Your task to perform on an android device: Open Youtube and go to "Your channel" Image 0: 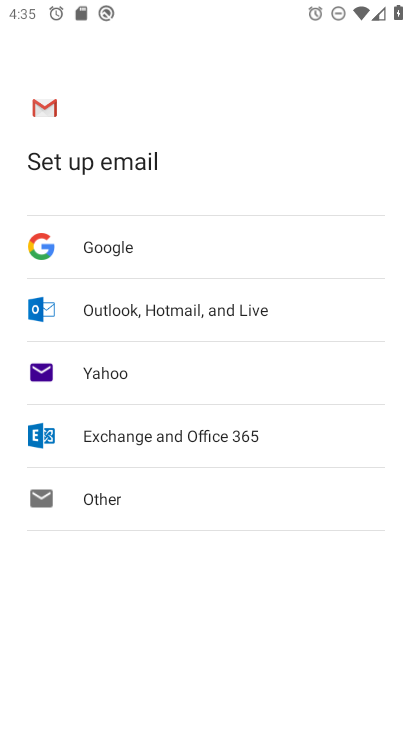
Step 0: press back button
Your task to perform on an android device: Open Youtube and go to "Your channel" Image 1: 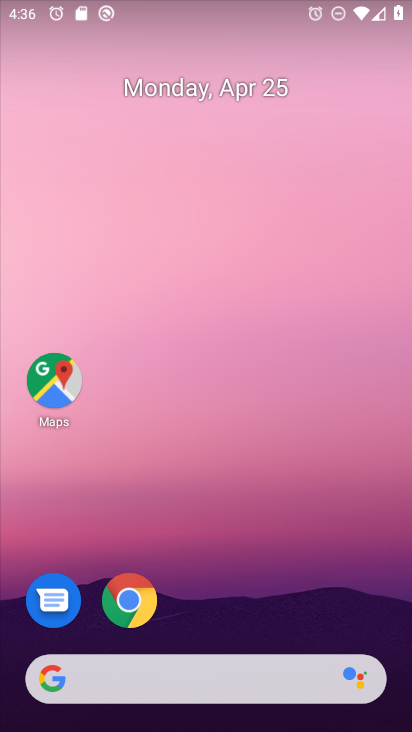
Step 1: drag from (226, 487) to (222, 39)
Your task to perform on an android device: Open Youtube and go to "Your channel" Image 2: 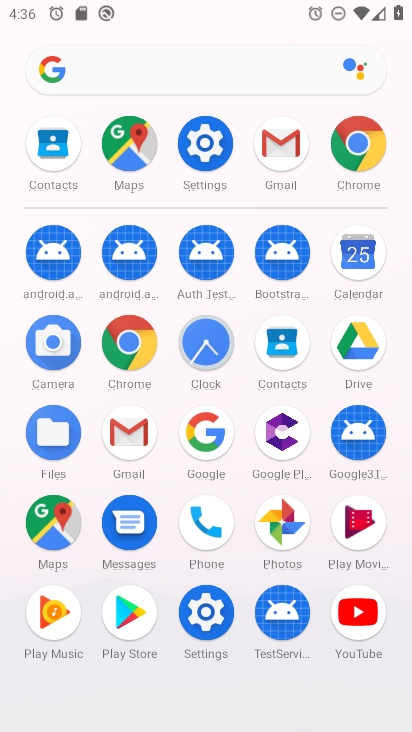
Step 2: drag from (7, 550) to (5, 334)
Your task to perform on an android device: Open Youtube and go to "Your channel" Image 3: 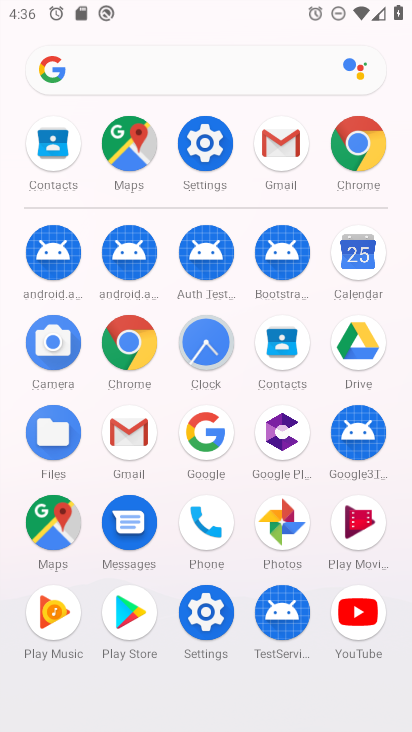
Step 3: click (349, 611)
Your task to perform on an android device: Open Youtube and go to "Your channel" Image 4: 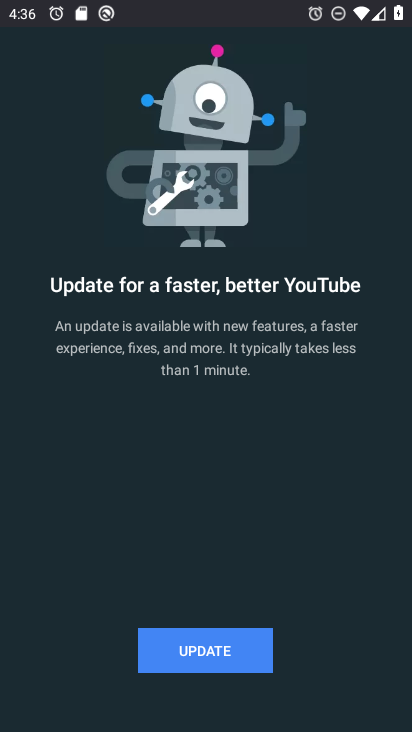
Step 4: click (237, 658)
Your task to perform on an android device: Open Youtube and go to "Your channel" Image 5: 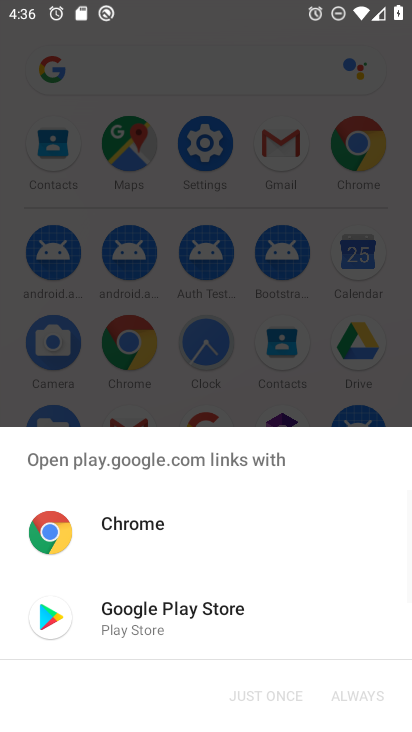
Step 5: click (130, 604)
Your task to perform on an android device: Open Youtube and go to "Your channel" Image 6: 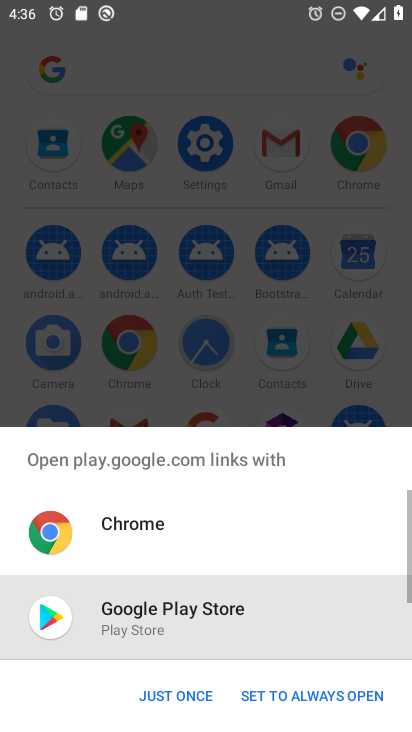
Step 6: click (195, 696)
Your task to perform on an android device: Open Youtube and go to "Your channel" Image 7: 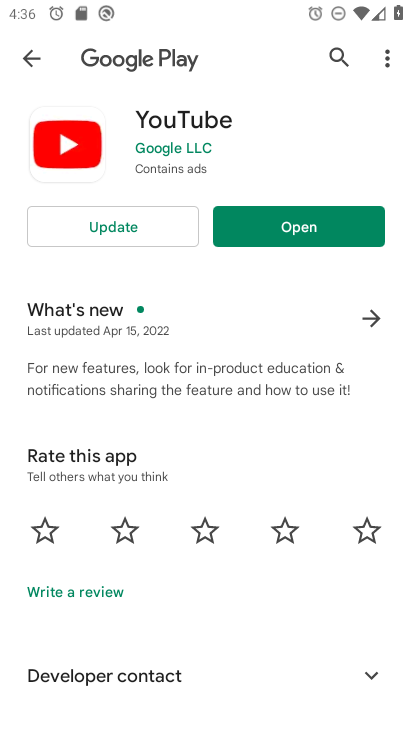
Step 7: click (120, 232)
Your task to perform on an android device: Open Youtube and go to "Your channel" Image 8: 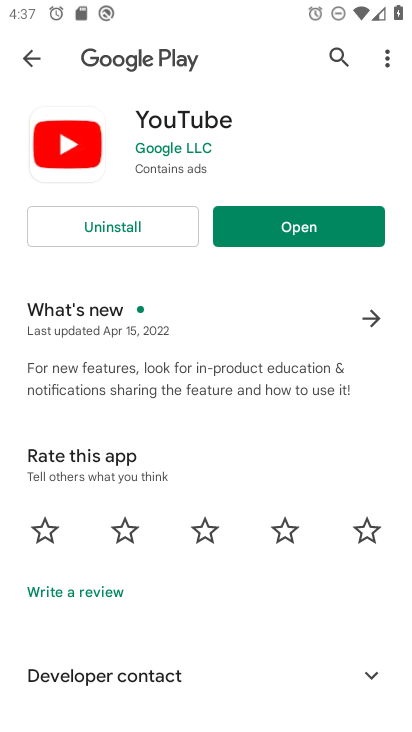
Step 8: click (315, 221)
Your task to perform on an android device: Open Youtube and go to "Your channel" Image 9: 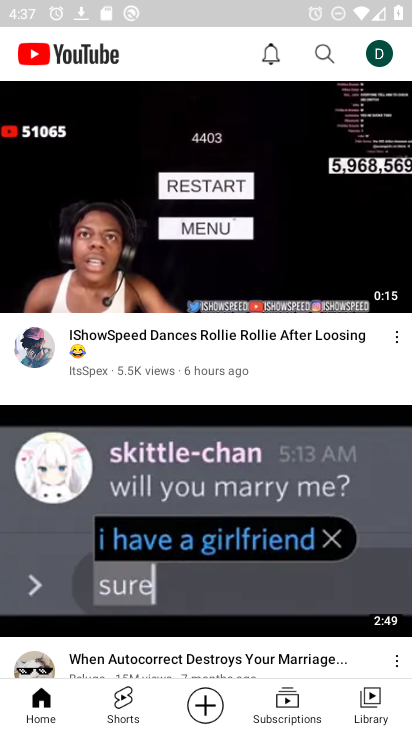
Step 9: click (378, 44)
Your task to perform on an android device: Open Youtube and go to "Your channel" Image 10: 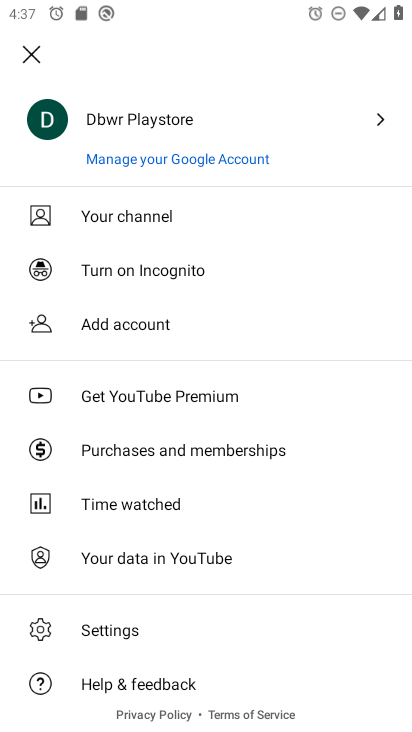
Step 10: click (169, 215)
Your task to perform on an android device: Open Youtube and go to "Your channel" Image 11: 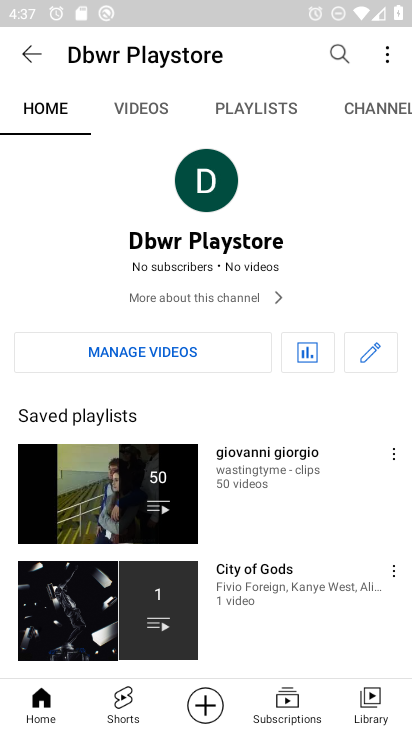
Step 11: task complete